Your task to perform on an android device: check data usage Image 0: 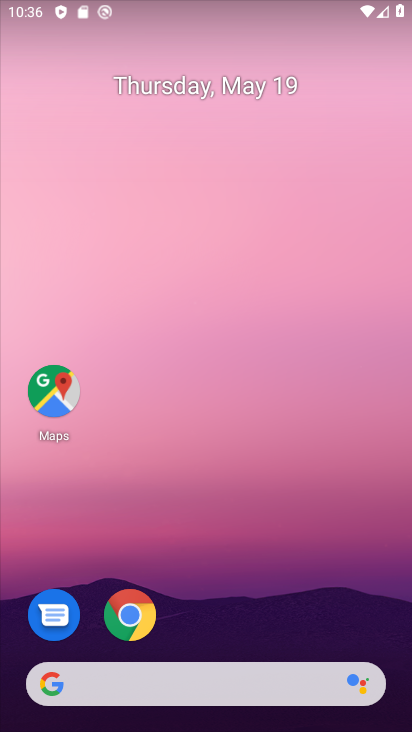
Step 0: click (227, 135)
Your task to perform on an android device: check data usage Image 1: 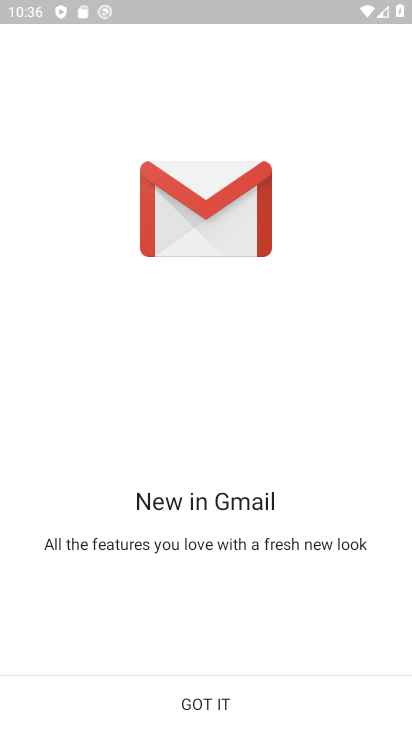
Step 1: press back button
Your task to perform on an android device: check data usage Image 2: 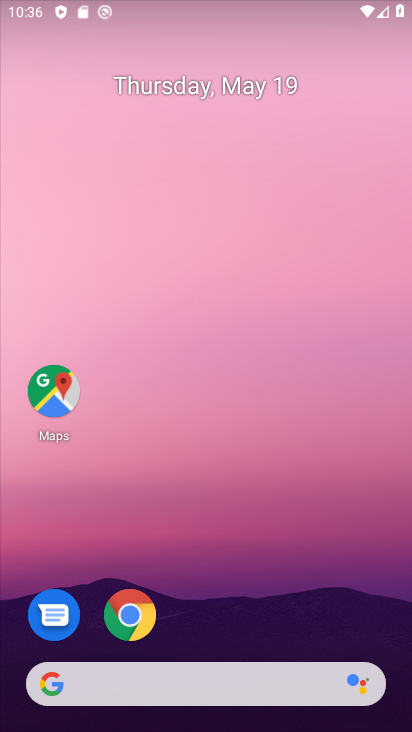
Step 2: drag from (261, 675) to (146, 174)
Your task to perform on an android device: check data usage Image 3: 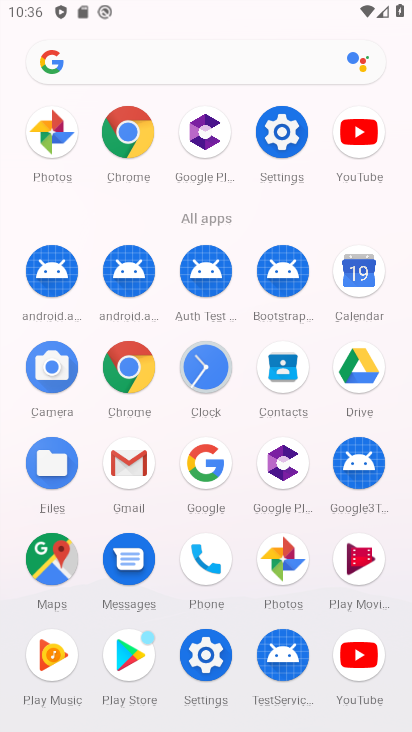
Step 3: click (290, 138)
Your task to perform on an android device: check data usage Image 4: 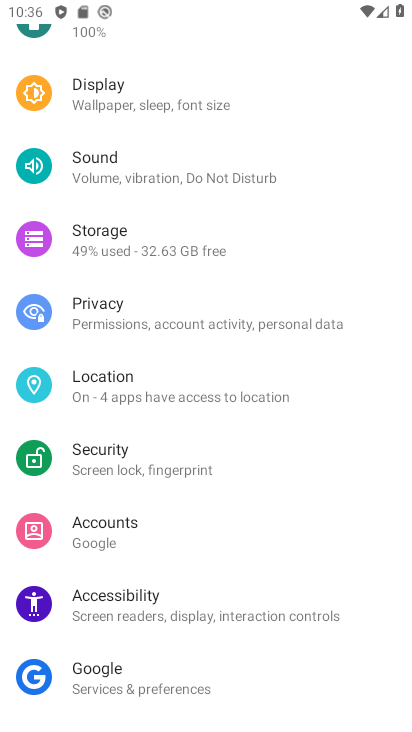
Step 4: drag from (113, 115) to (190, 688)
Your task to perform on an android device: check data usage Image 5: 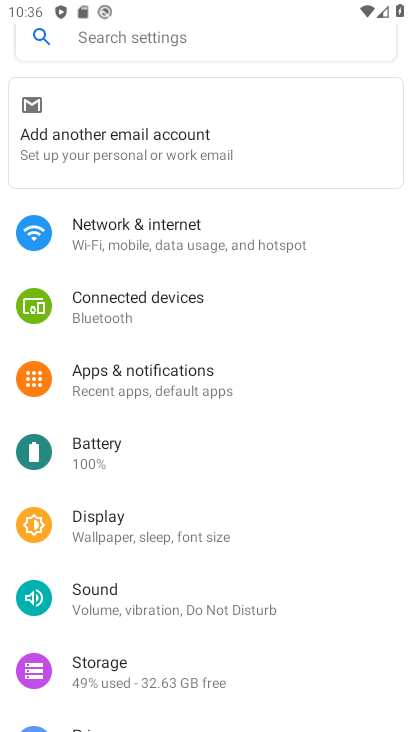
Step 5: click (127, 251)
Your task to perform on an android device: check data usage Image 6: 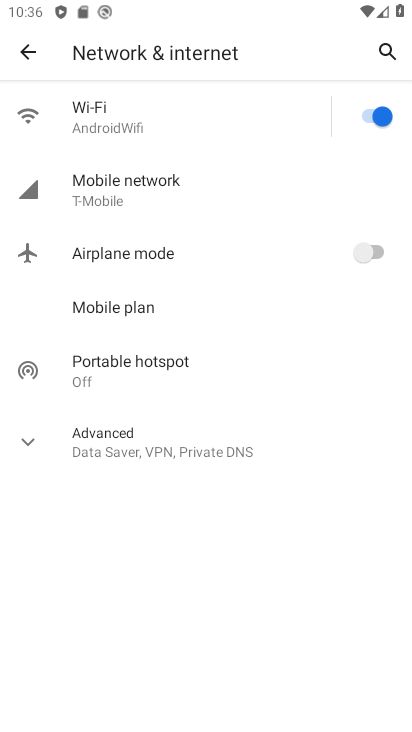
Step 6: click (101, 185)
Your task to perform on an android device: check data usage Image 7: 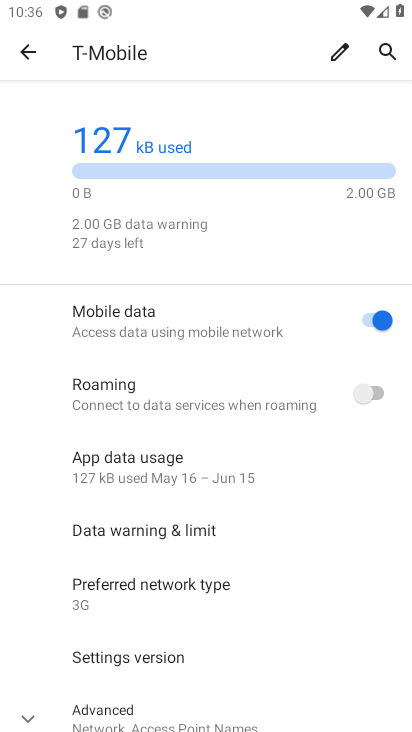
Step 7: task complete